Your task to perform on an android device: turn off translation in the chrome app Image 0: 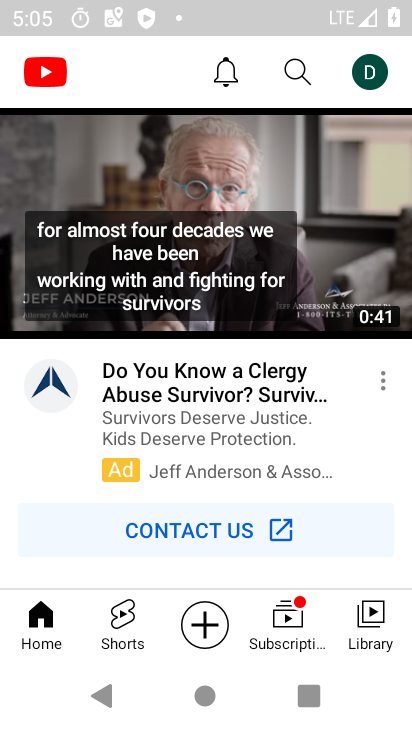
Step 0: press home button
Your task to perform on an android device: turn off translation in the chrome app Image 1: 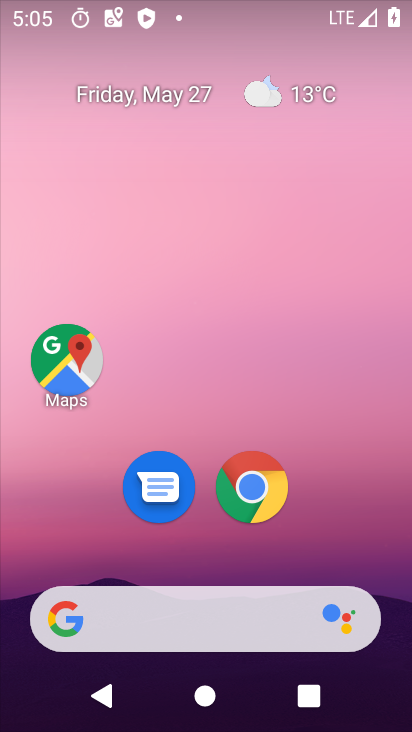
Step 1: click (257, 486)
Your task to perform on an android device: turn off translation in the chrome app Image 2: 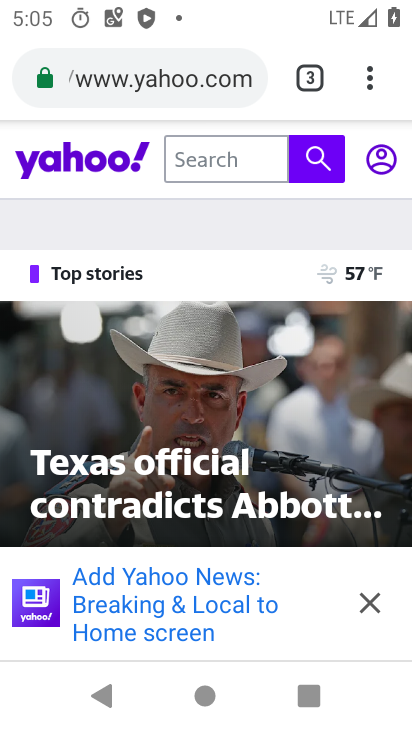
Step 2: drag from (373, 67) to (255, 536)
Your task to perform on an android device: turn off translation in the chrome app Image 3: 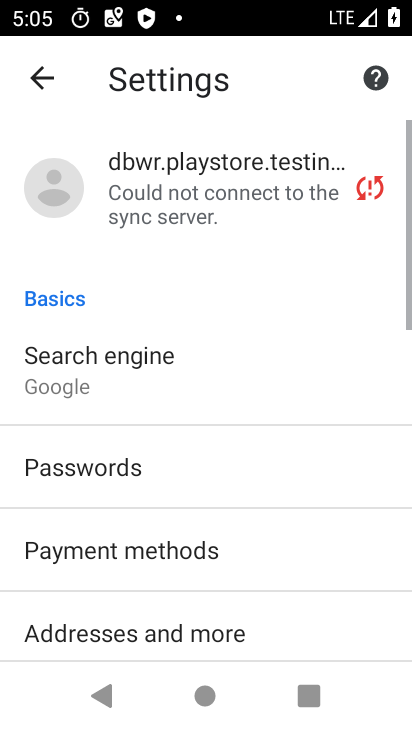
Step 3: drag from (249, 559) to (276, 215)
Your task to perform on an android device: turn off translation in the chrome app Image 4: 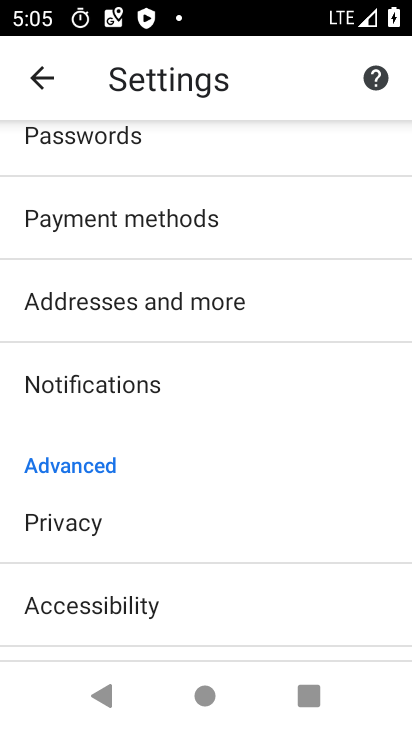
Step 4: drag from (239, 516) to (266, 218)
Your task to perform on an android device: turn off translation in the chrome app Image 5: 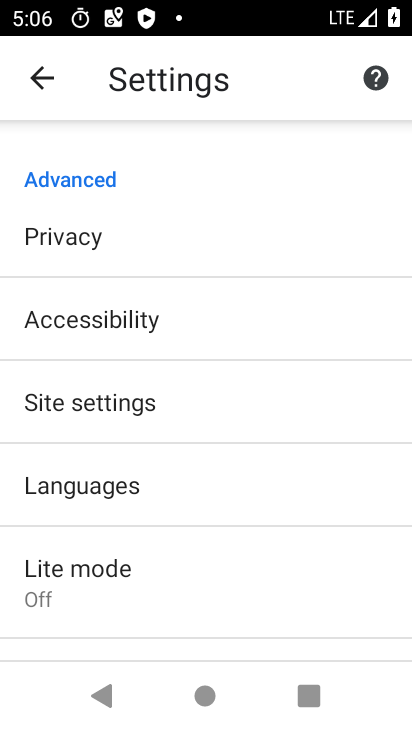
Step 5: click (102, 487)
Your task to perform on an android device: turn off translation in the chrome app Image 6: 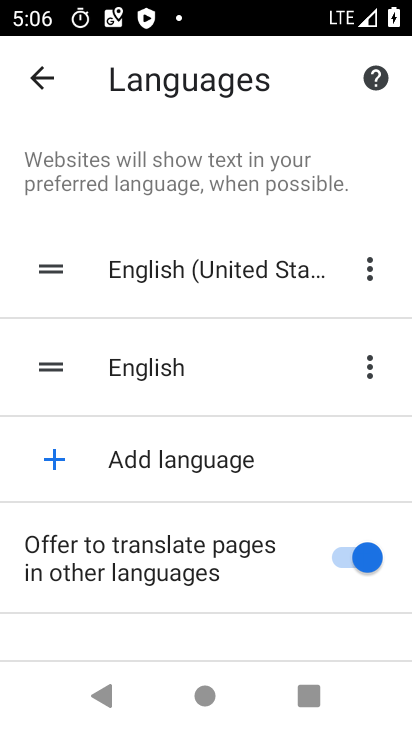
Step 6: click (340, 549)
Your task to perform on an android device: turn off translation in the chrome app Image 7: 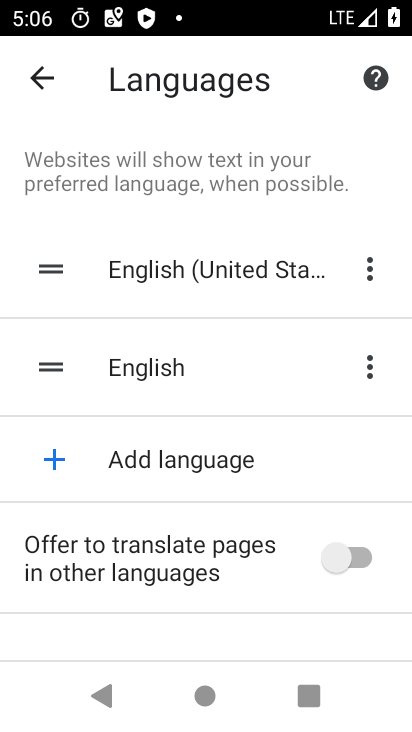
Step 7: task complete